Your task to perform on an android device: Go to Google maps Image 0: 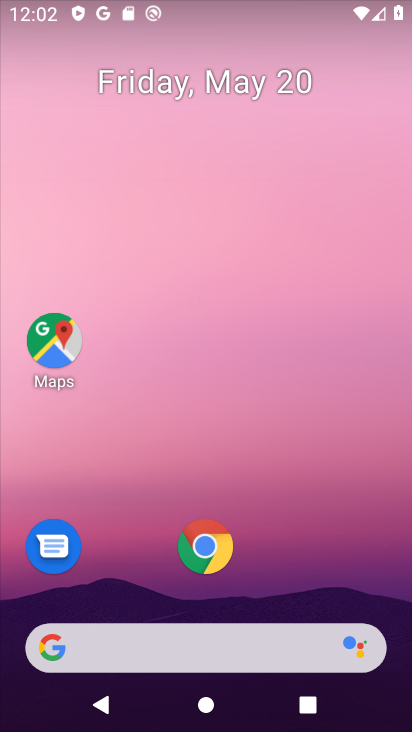
Step 0: drag from (312, 481) to (295, 82)
Your task to perform on an android device: Go to Google maps Image 1: 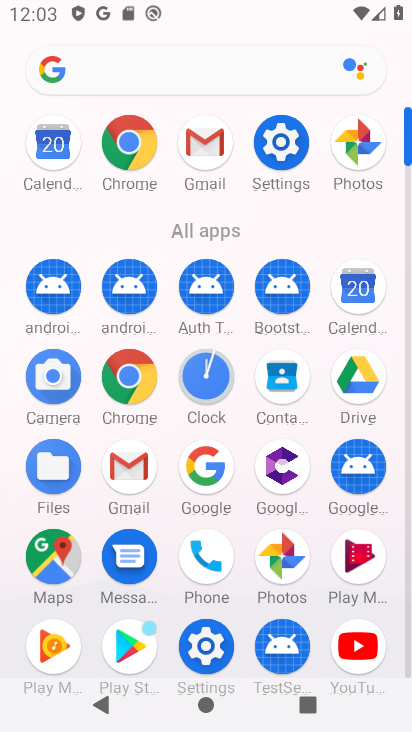
Step 1: click (59, 569)
Your task to perform on an android device: Go to Google maps Image 2: 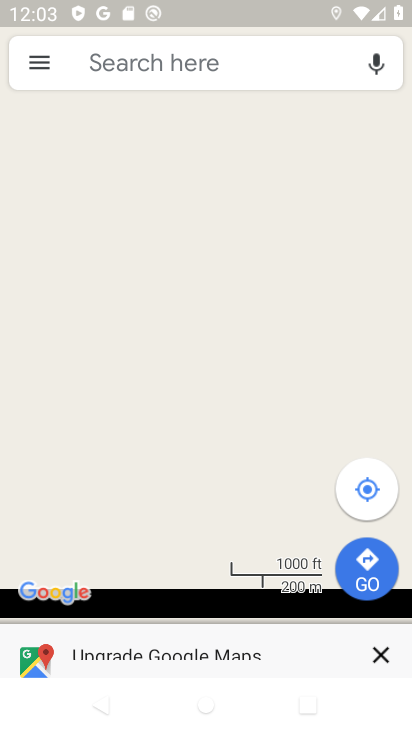
Step 2: task complete